Your task to perform on an android device: read, delete, or share a saved page in the chrome app Image 0: 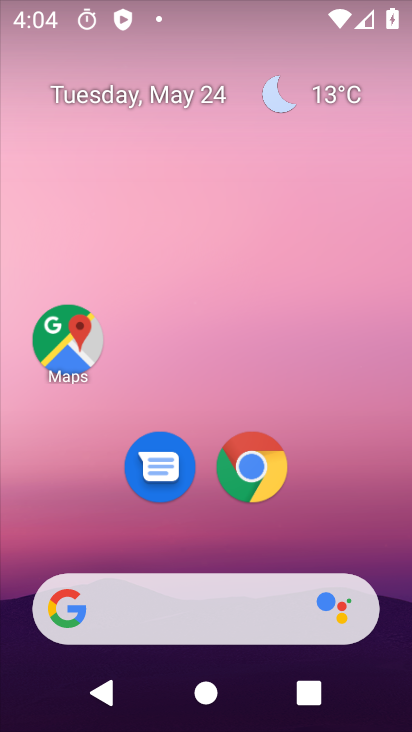
Step 0: click (249, 465)
Your task to perform on an android device: read, delete, or share a saved page in the chrome app Image 1: 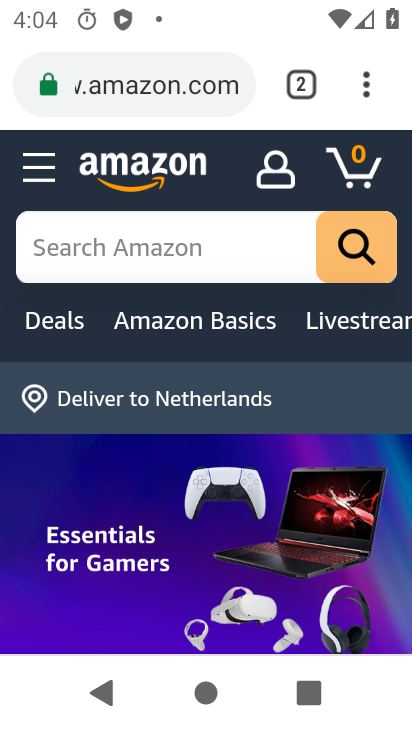
Step 1: task complete